Your task to perform on an android device: delete a single message in the gmail app Image 0: 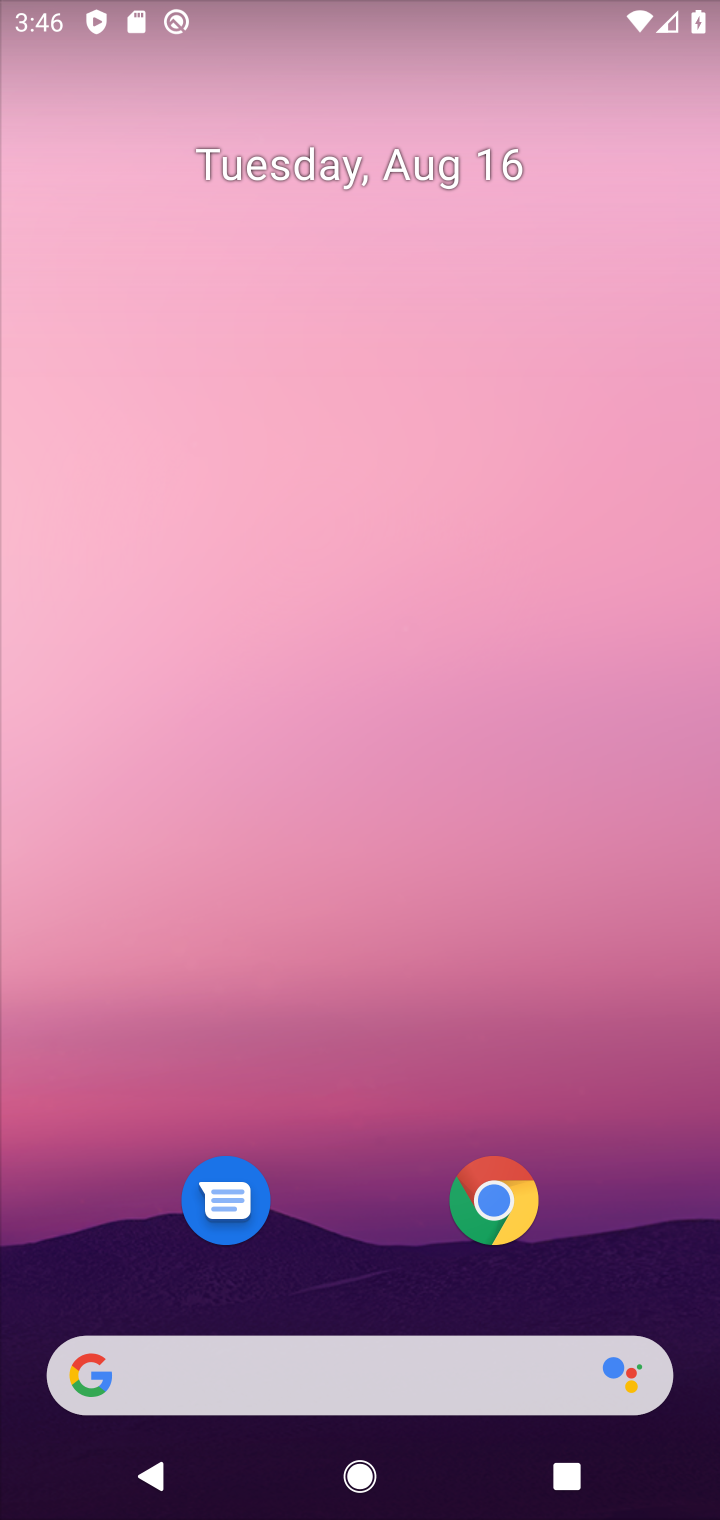
Step 0: drag from (371, 1241) to (331, 531)
Your task to perform on an android device: delete a single message in the gmail app Image 1: 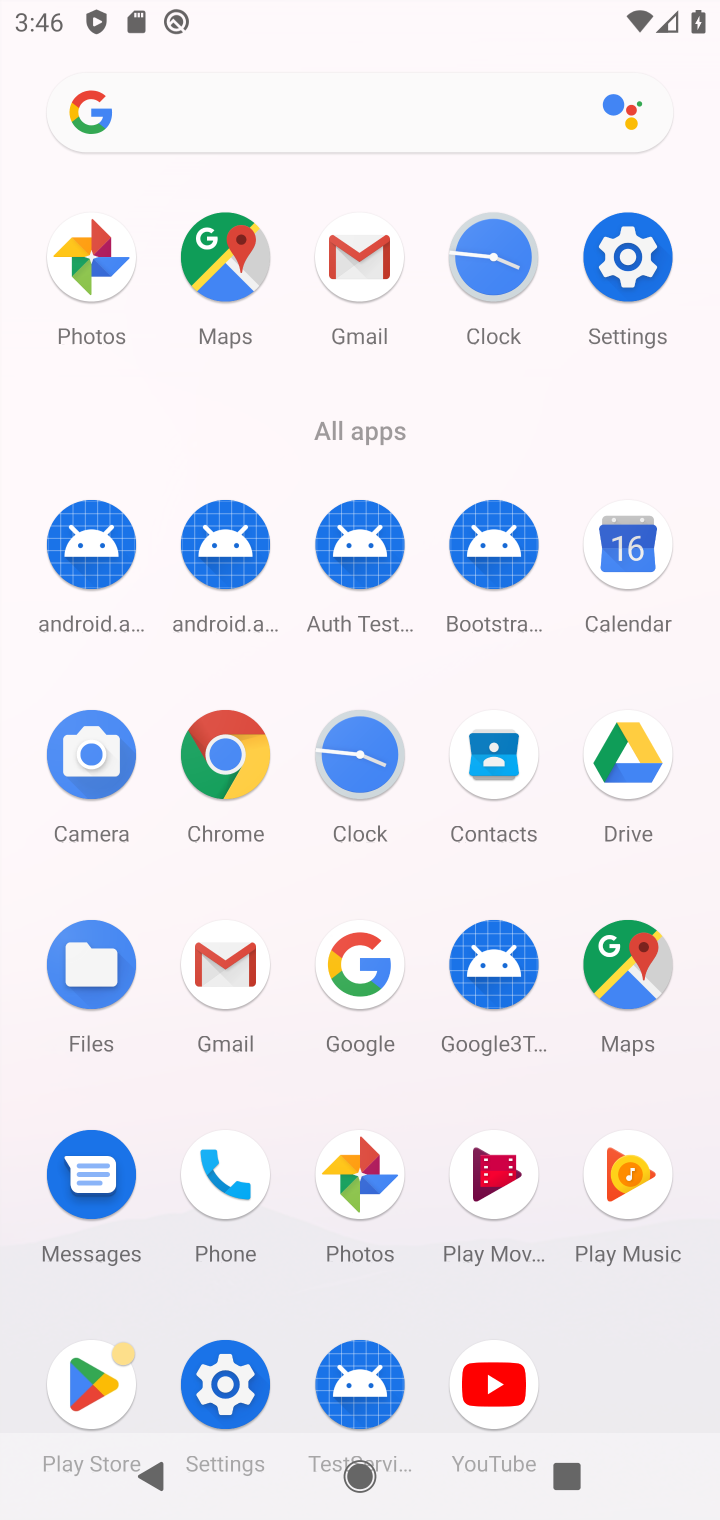
Step 1: click (361, 290)
Your task to perform on an android device: delete a single message in the gmail app Image 2: 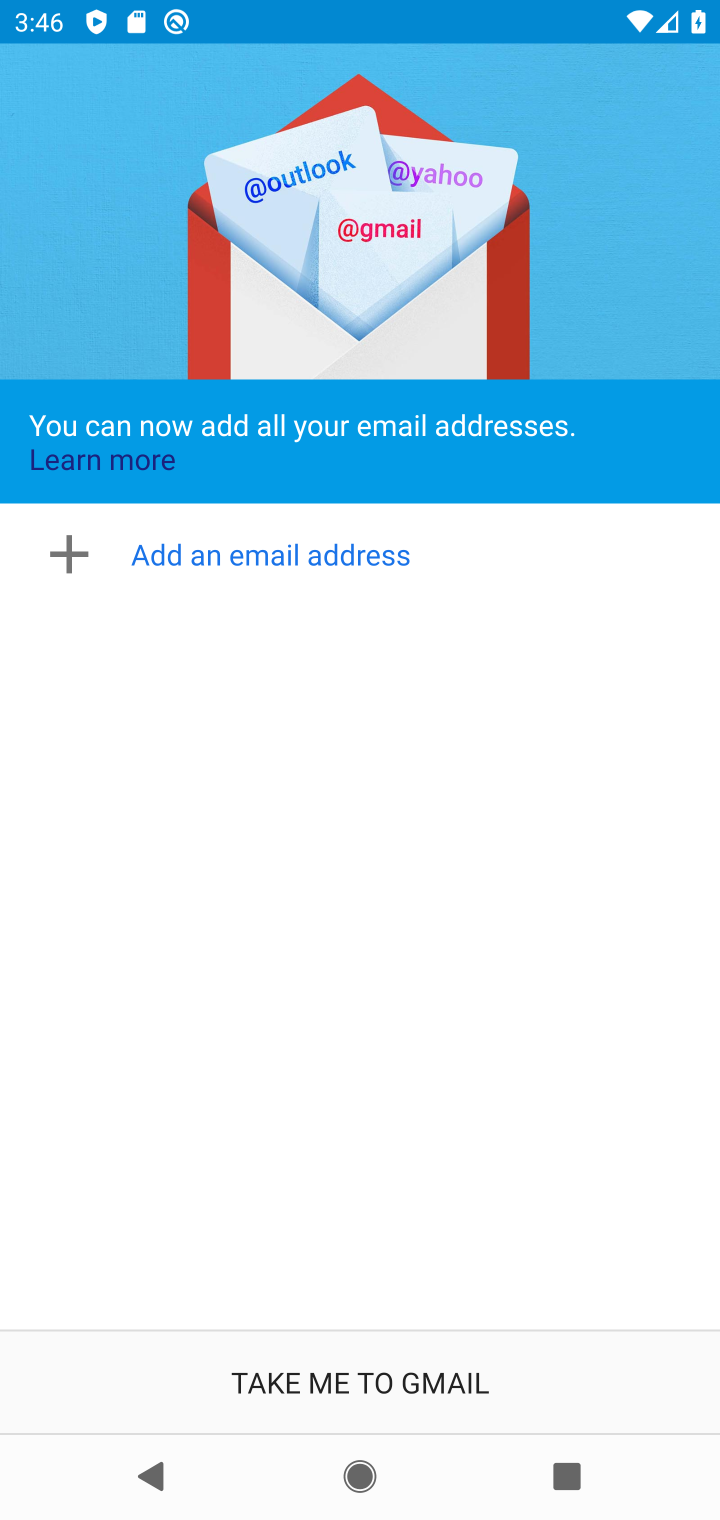
Step 2: click (351, 1355)
Your task to perform on an android device: delete a single message in the gmail app Image 3: 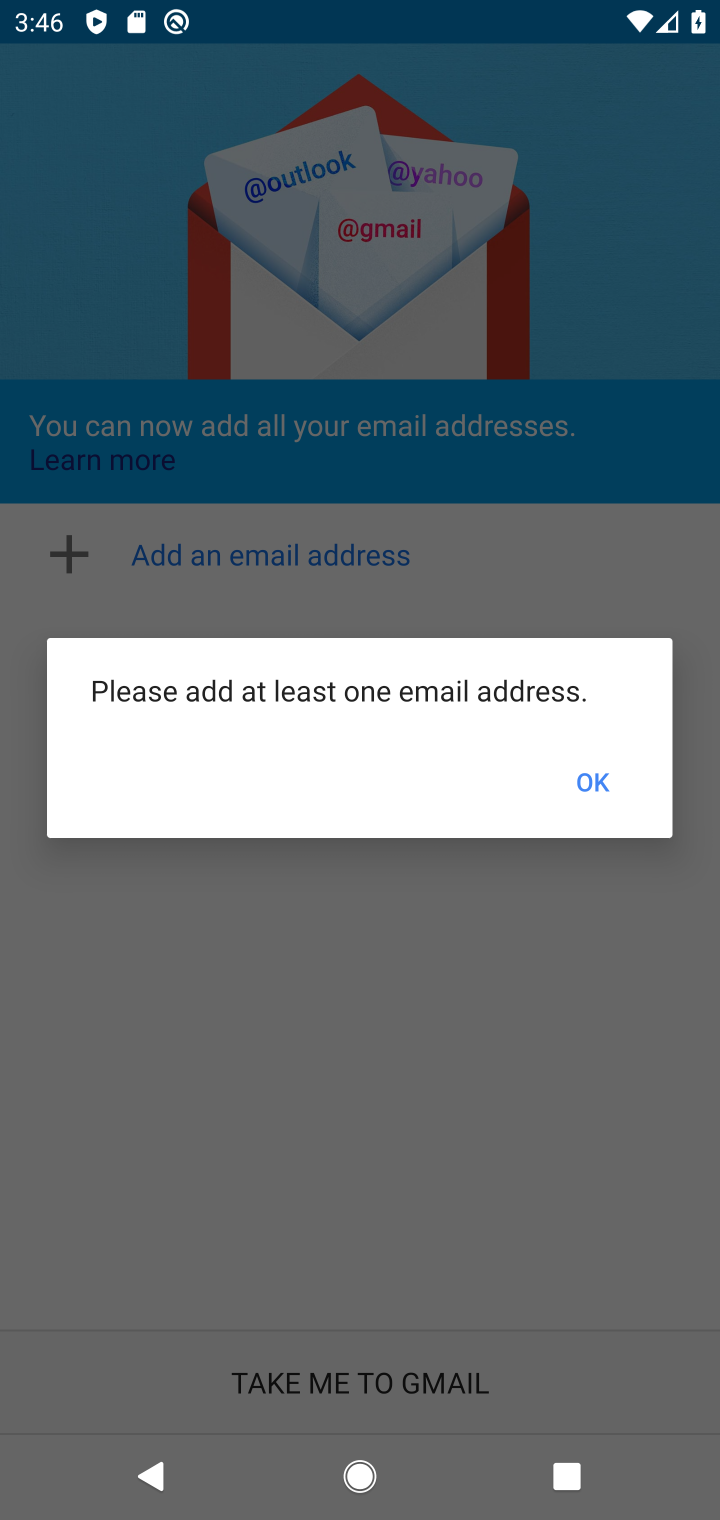
Step 3: task complete